Your task to perform on an android device: stop showing notifications on the lock screen Image 0: 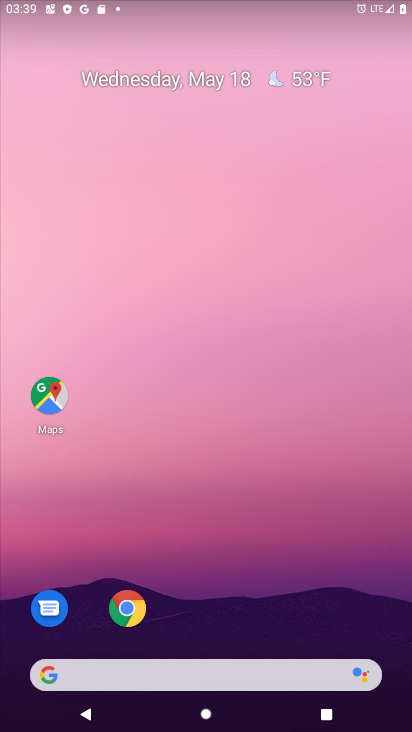
Step 0: drag from (306, 584) to (317, 4)
Your task to perform on an android device: stop showing notifications on the lock screen Image 1: 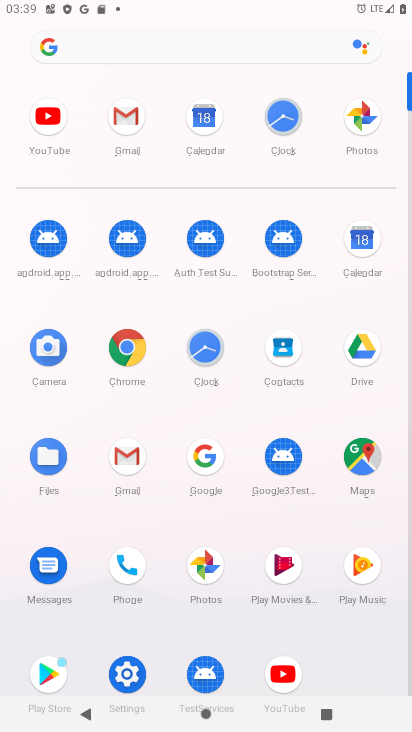
Step 1: click (122, 666)
Your task to perform on an android device: stop showing notifications on the lock screen Image 2: 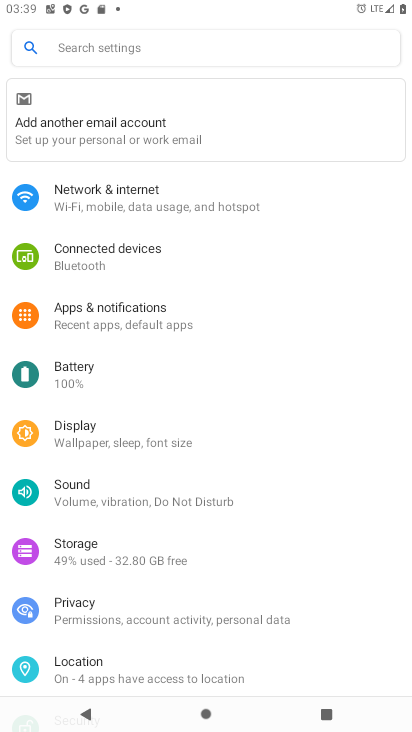
Step 2: click (158, 312)
Your task to perform on an android device: stop showing notifications on the lock screen Image 3: 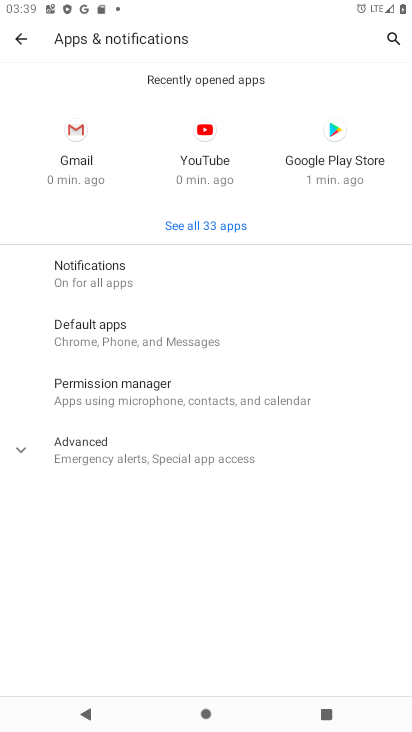
Step 3: click (109, 282)
Your task to perform on an android device: stop showing notifications on the lock screen Image 4: 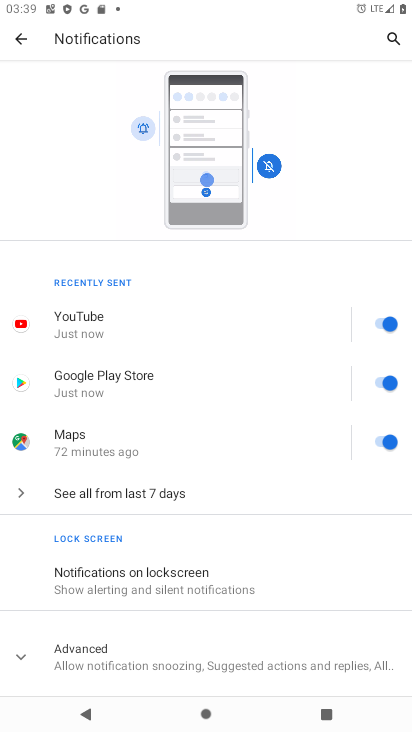
Step 4: click (138, 593)
Your task to perform on an android device: stop showing notifications on the lock screen Image 5: 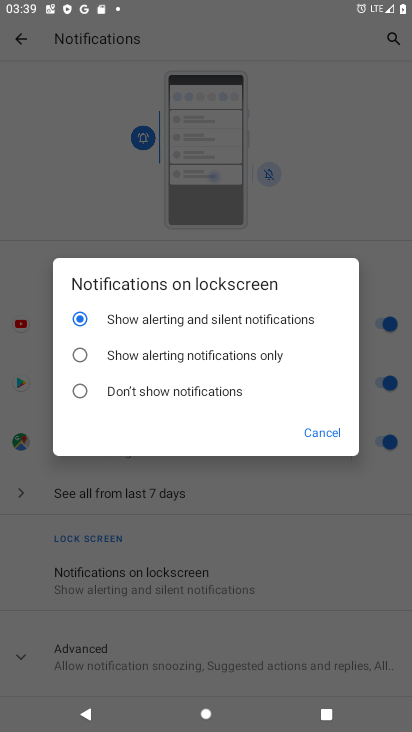
Step 5: click (80, 388)
Your task to perform on an android device: stop showing notifications on the lock screen Image 6: 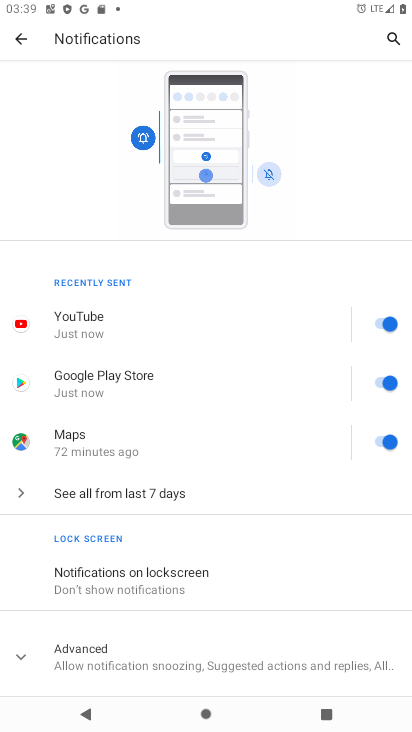
Step 6: task complete